Your task to perform on an android device: What's the weather today? Image 0: 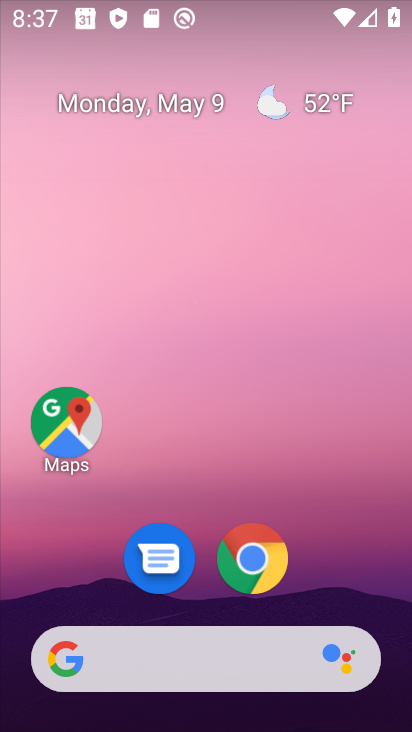
Step 0: click (304, 105)
Your task to perform on an android device: What's the weather today? Image 1: 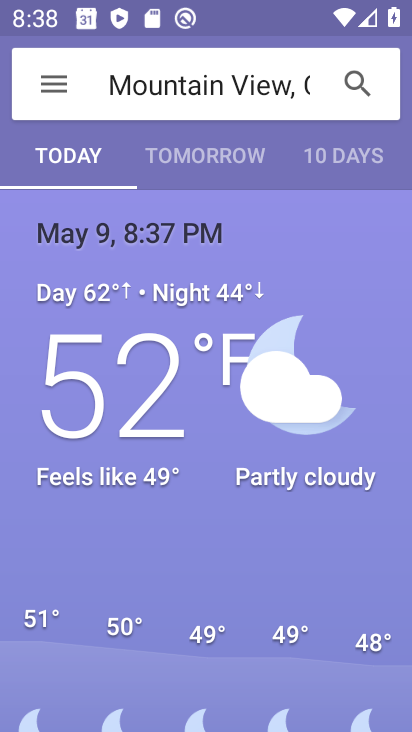
Step 1: task complete